Your task to perform on an android device: search for starred emails in the gmail app Image 0: 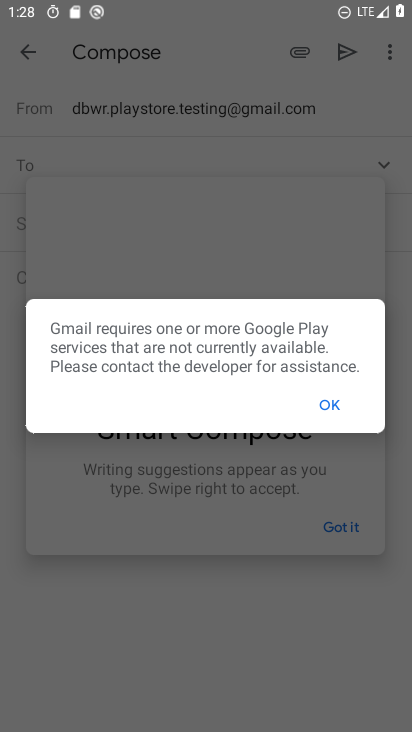
Step 0: press home button
Your task to perform on an android device: search for starred emails in the gmail app Image 1: 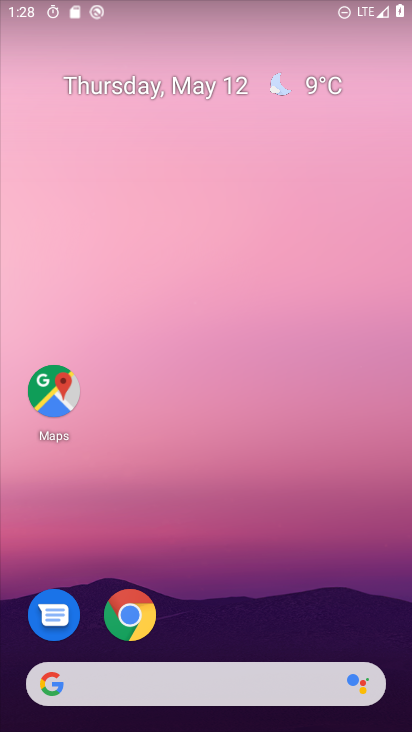
Step 1: click (232, 37)
Your task to perform on an android device: search for starred emails in the gmail app Image 2: 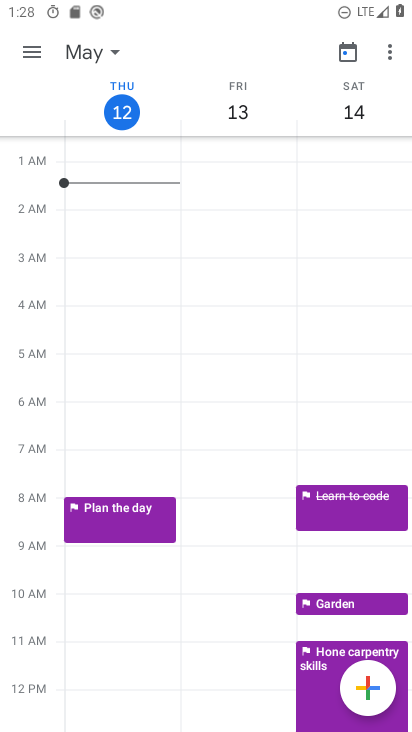
Step 2: press home button
Your task to perform on an android device: search for starred emails in the gmail app Image 3: 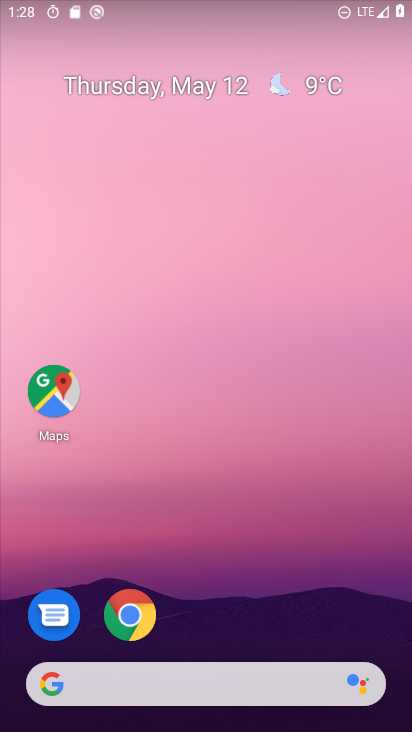
Step 3: drag from (342, 579) to (275, 93)
Your task to perform on an android device: search for starred emails in the gmail app Image 4: 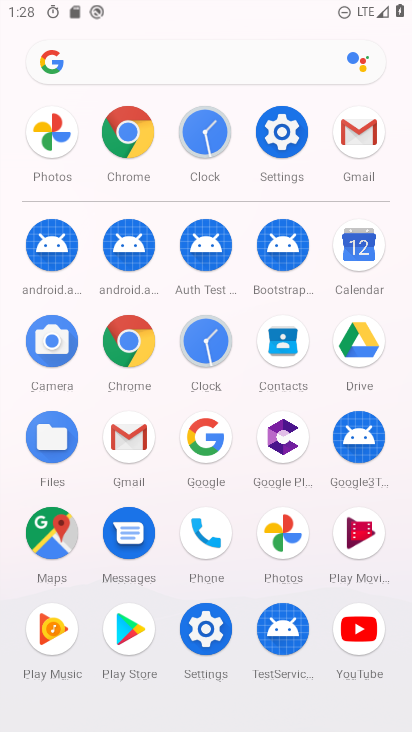
Step 4: click (125, 435)
Your task to perform on an android device: search for starred emails in the gmail app Image 5: 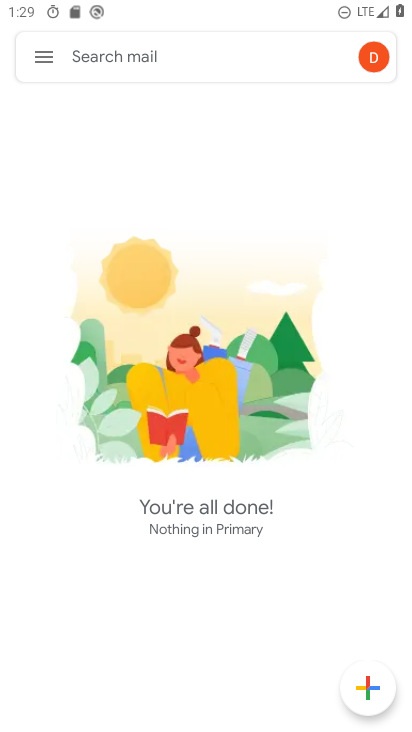
Step 5: click (50, 60)
Your task to perform on an android device: search for starred emails in the gmail app Image 6: 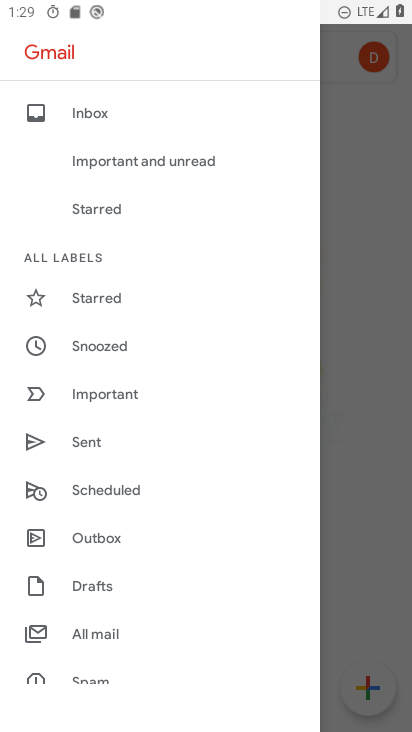
Step 6: click (72, 305)
Your task to perform on an android device: search for starred emails in the gmail app Image 7: 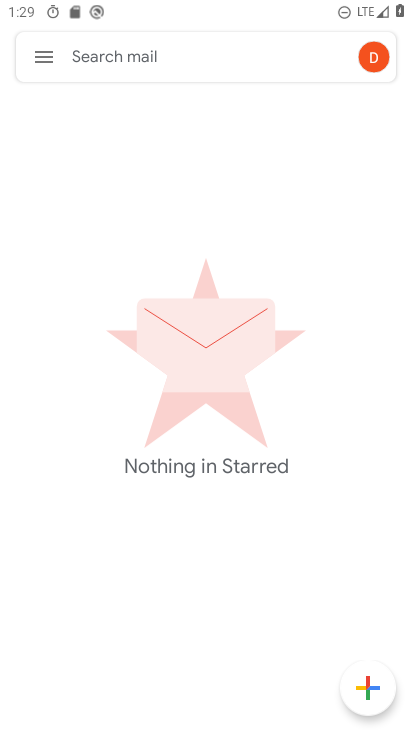
Step 7: task complete